Your task to perform on an android device: change notifications settings Image 0: 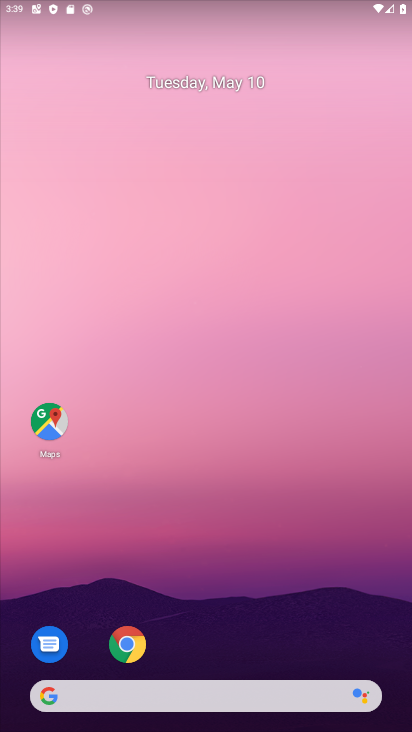
Step 0: drag from (204, 616) to (184, 89)
Your task to perform on an android device: change notifications settings Image 1: 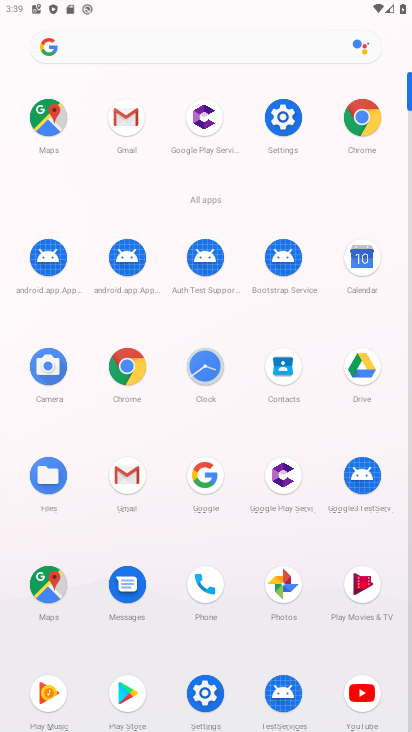
Step 1: click (279, 118)
Your task to perform on an android device: change notifications settings Image 2: 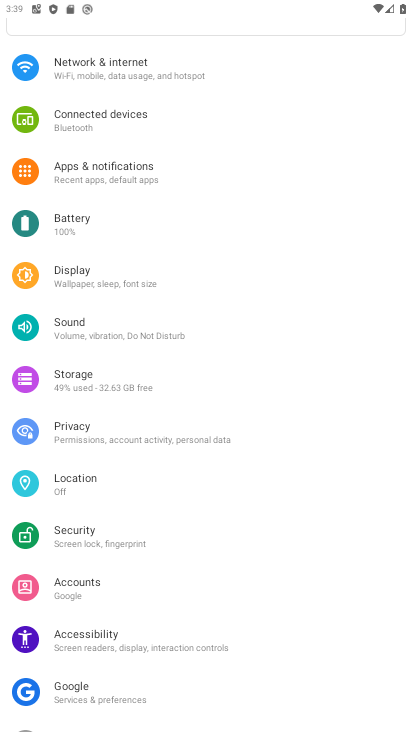
Step 2: click (142, 169)
Your task to perform on an android device: change notifications settings Image 3: 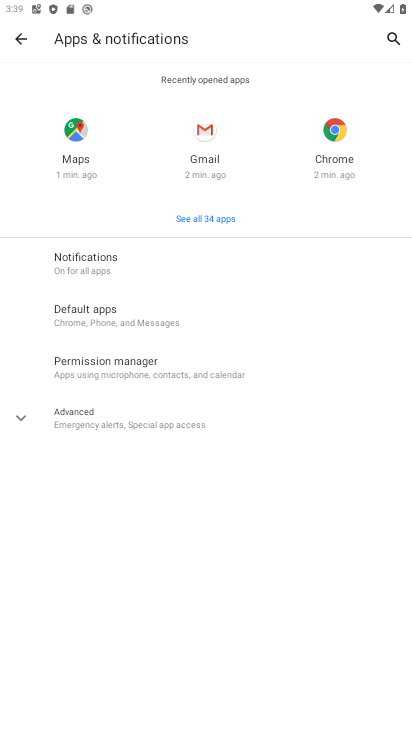
Step 3: click (130, 264)
Your task to perform on an android device: change notifications settings Image 4: 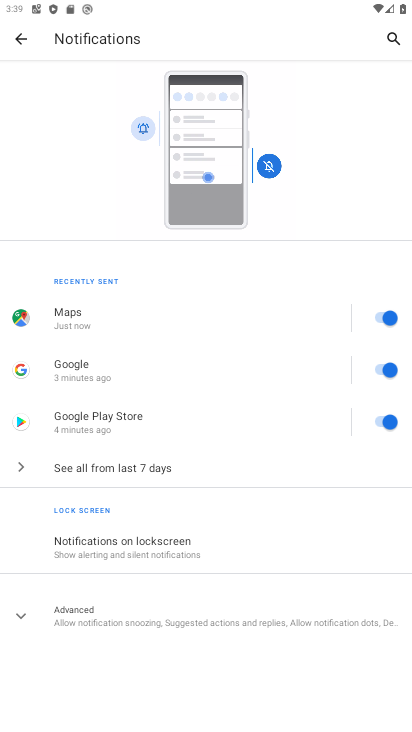
Step 4: click (388, 313)
Your task to perform on an android device: change notifications settings Image 5: 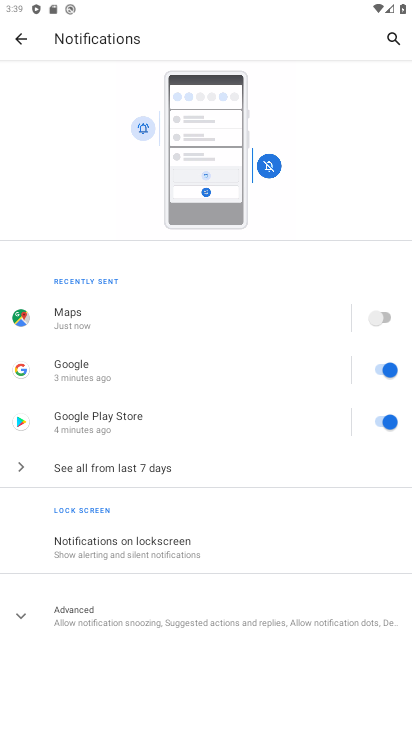
Step 5: click (386, 371)
Your task to perform on an android device: change notifications settings Image 6: 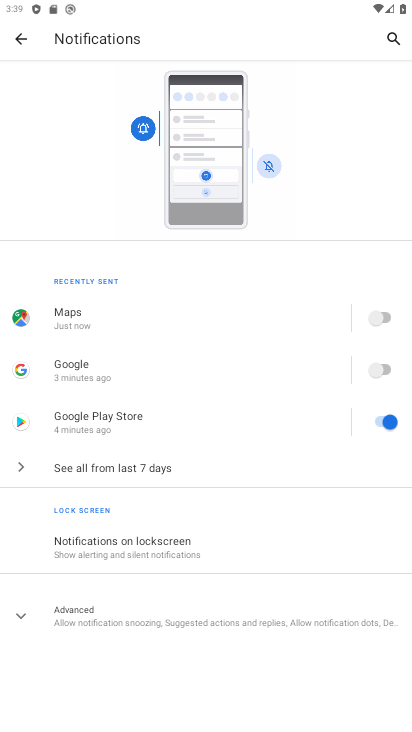
Step 6: click (381, 423)
Your task to perform on an android device: change notifications settings Image 7: 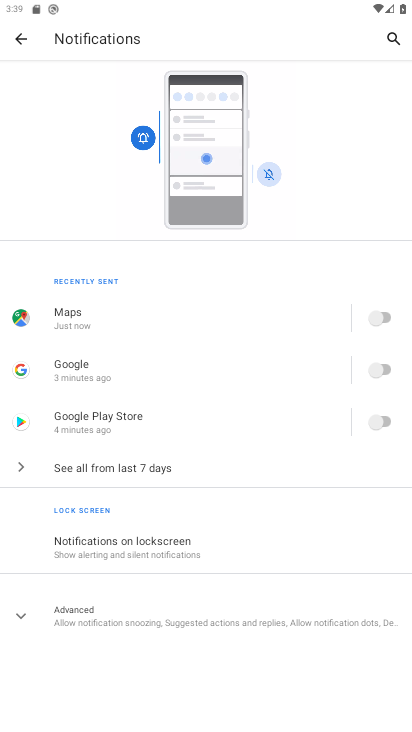
Step 7: task complete